Your task to perform on an android device: Go to ESPN.com Image 0: 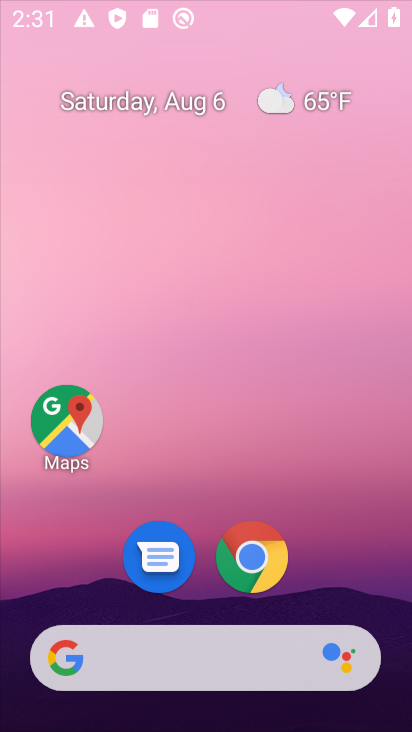
Step 0: click (174, 18)
Your task to perform on an android device: Go to ESPN.com Image 1: 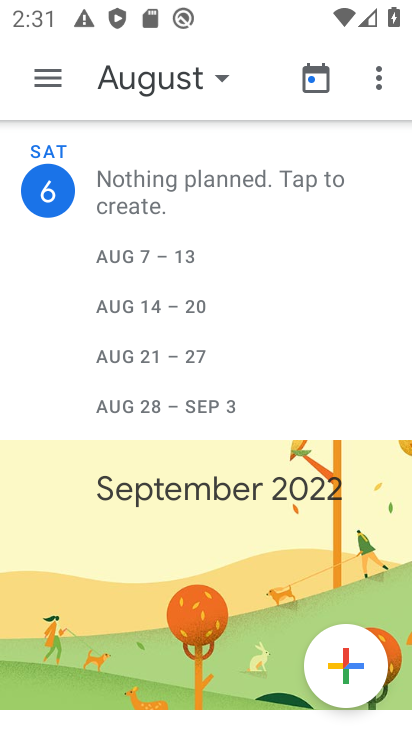
Step 1: press home button
Your task to perform on an android device: Go to ESPN.com Image 2: 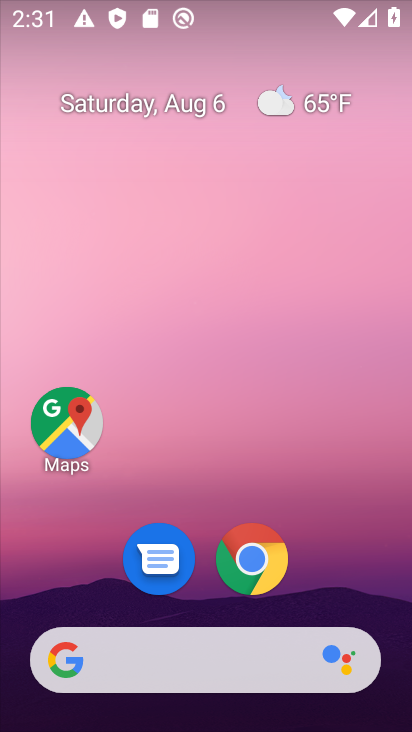
Step 2: click (246, 570)
Your task to perform on an android device: Go to ESPN.com Image 3: 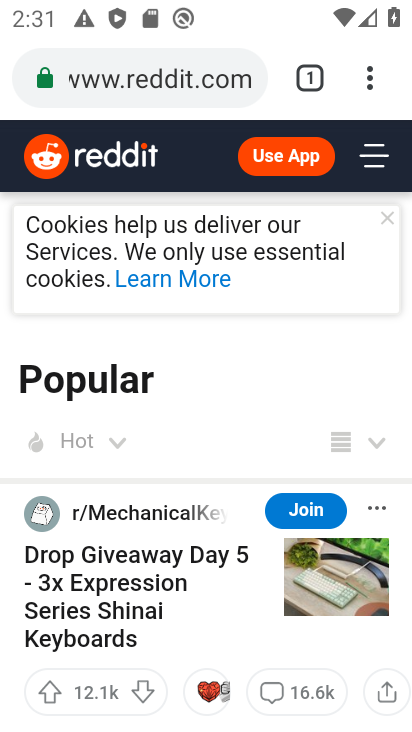
Step 3: click (208, 87)
Your task to perform on an android device: Go to ESPN.com Image 4: 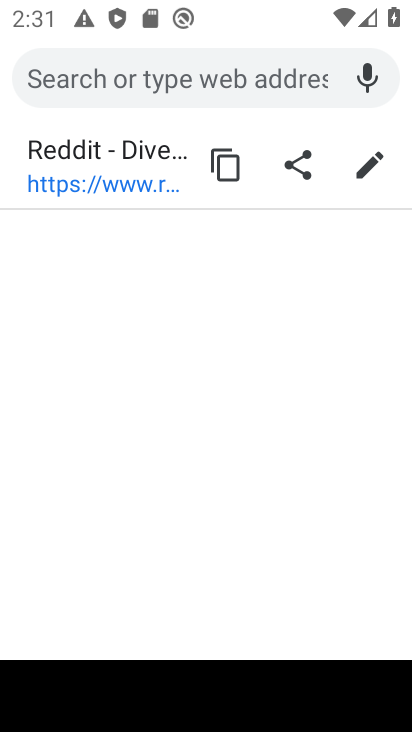
Step 4: type "www.espn.com"
Your task to perform on an android device: Go to ESPN.com Image 5: 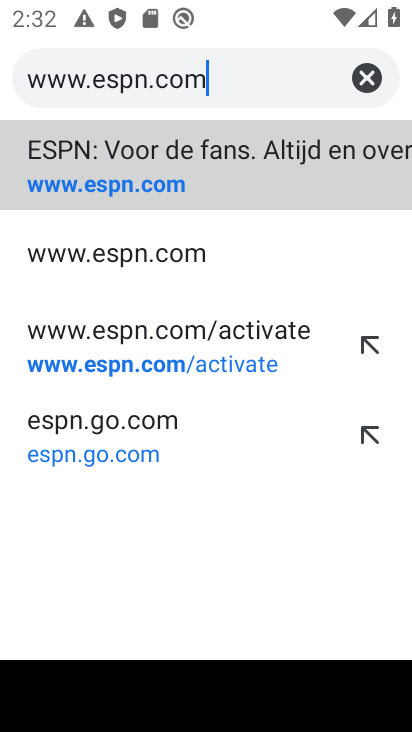
Step 5: click (78, 186)
Your task to perform on an android device: Go to ESPN.com Image 6: 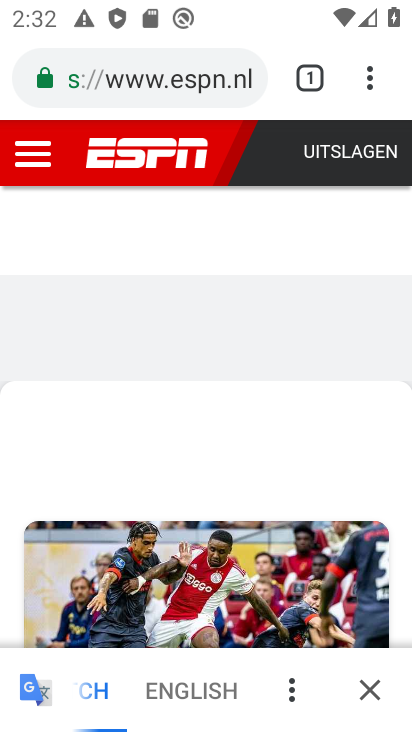
Step 6: task complete